Your task to perform on an android device: star an email in the gmail app Image 0: 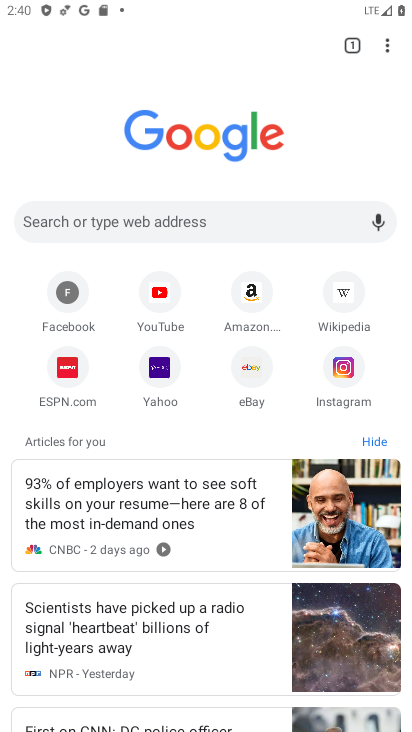
Step 0: press home button
Your task to perform on an android device: star an email in the gmail app Image 1: 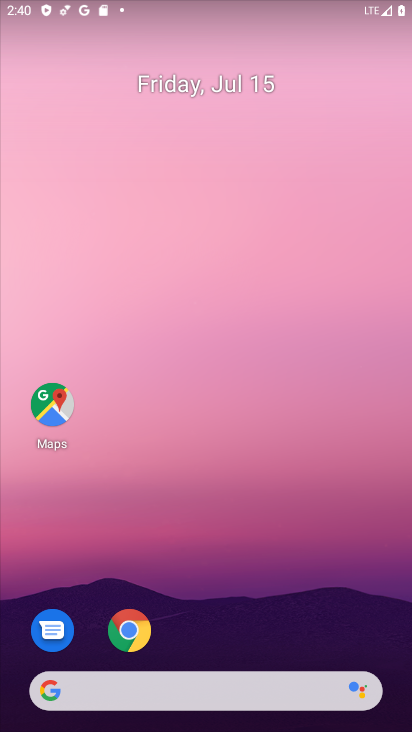
Step 1: drag from (192, 681) to (211, 104)
Your task to perform on an android device: star an email in the gmail app Image 2: 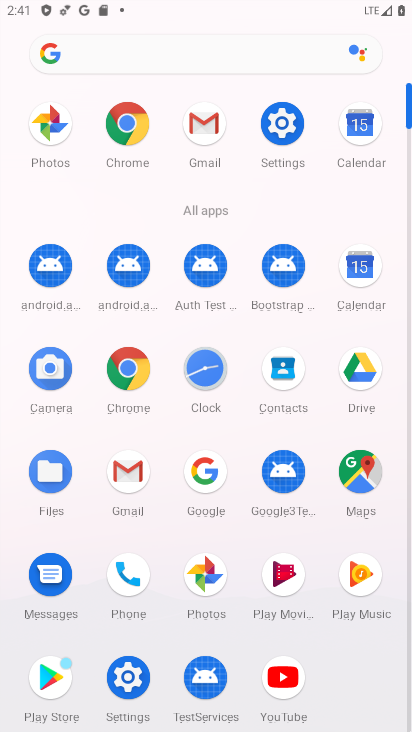
Step 2: click (130, 464)
Your task to perform on an android device: star an email in the gmail app Image 3: 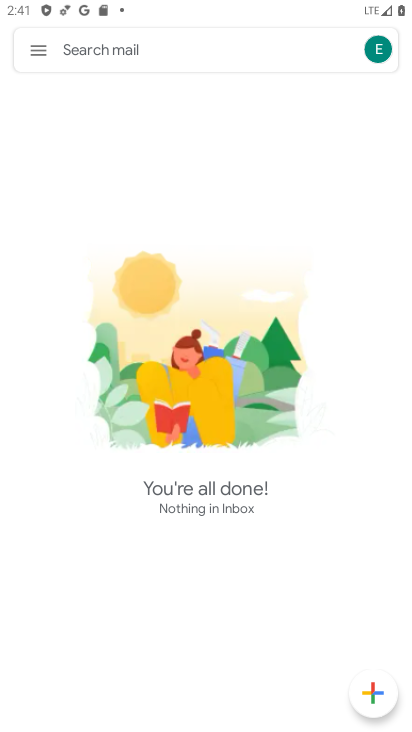
Step 3: click (41, 54)
Your task to perform on an android device: star an email in the gmail app Image 4: 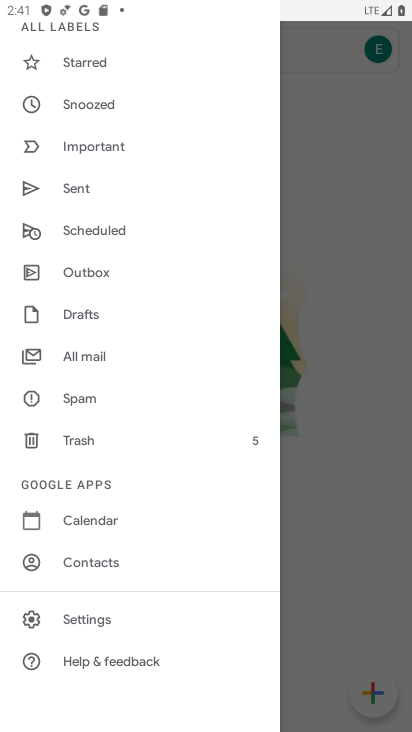
Step 4: click (72, 359)
Your task to perform on an android device: star an email in the gmail app Image 5: 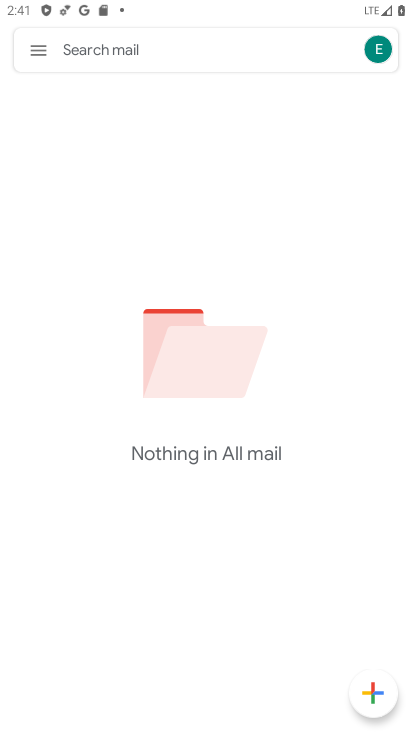
Step 5: task complete